Your task to perform on an android device: Play the new Drake video on YouTube Image 0: 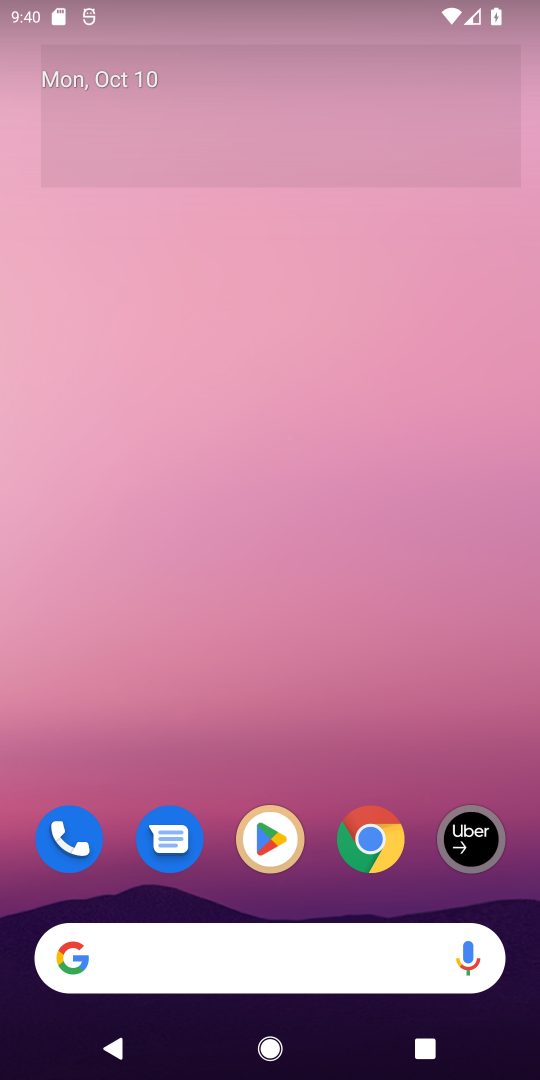
Step 0: drag from (342, 903) to (359, 87)
Your task to perform on an android device: Play the new Drake video on YouTube Image 1: 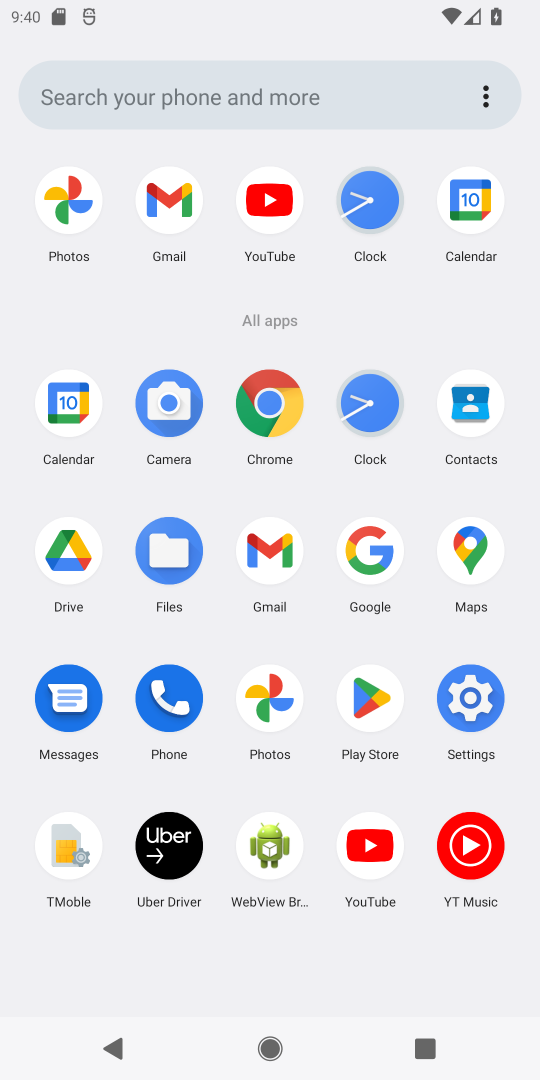
Step 1: click (382, 832)
Your task to perform on an android device: Play the new Drake video on YouTube Image 2: 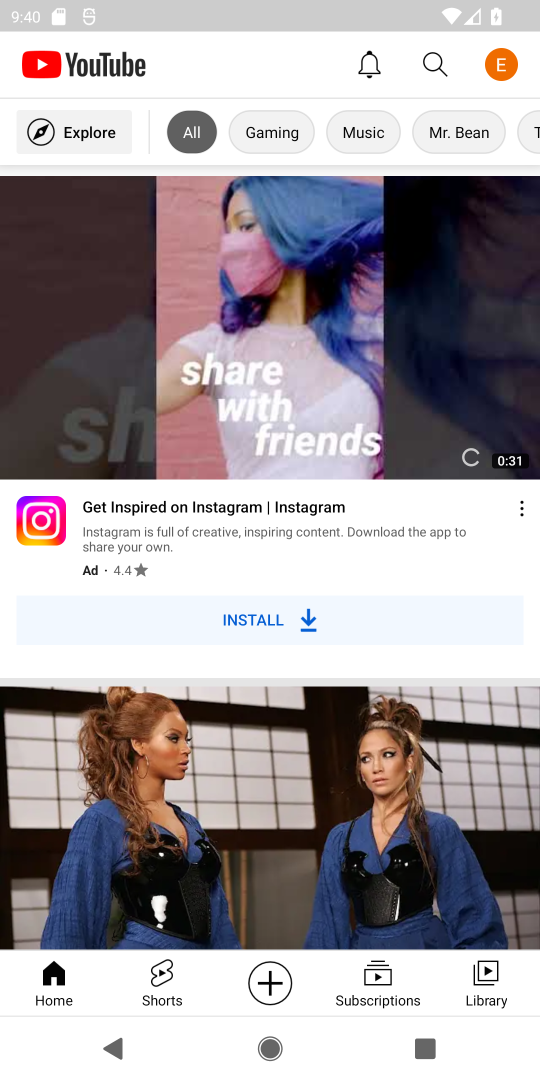
Step 2: click (432, 61)
Your task to perform on an android device: Play the new Drake video on YouTube Image 3: 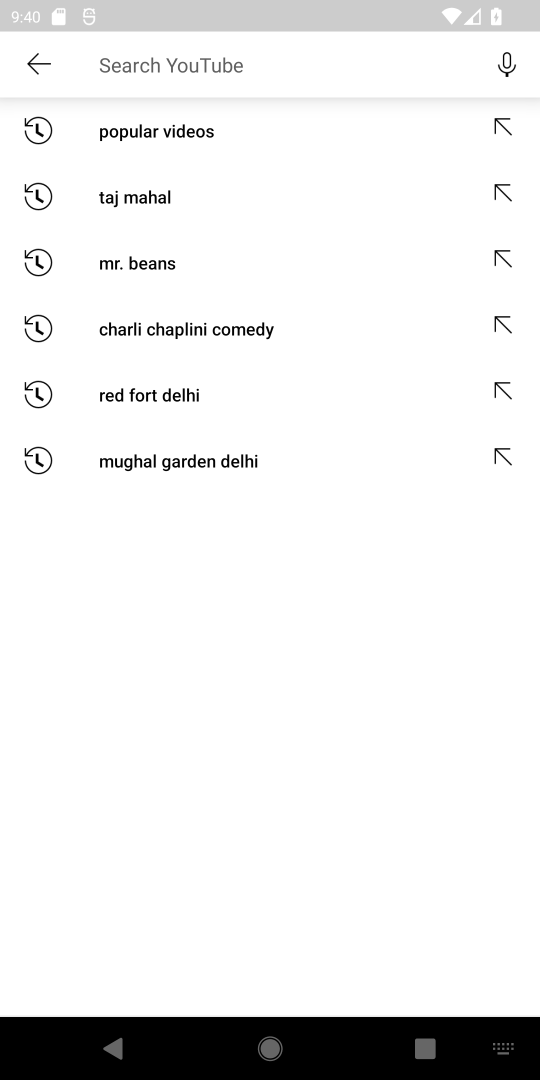
Step 3: type "drake video"
Your task to perform on an android device: Play the new Drake video on YouTube Image 4: 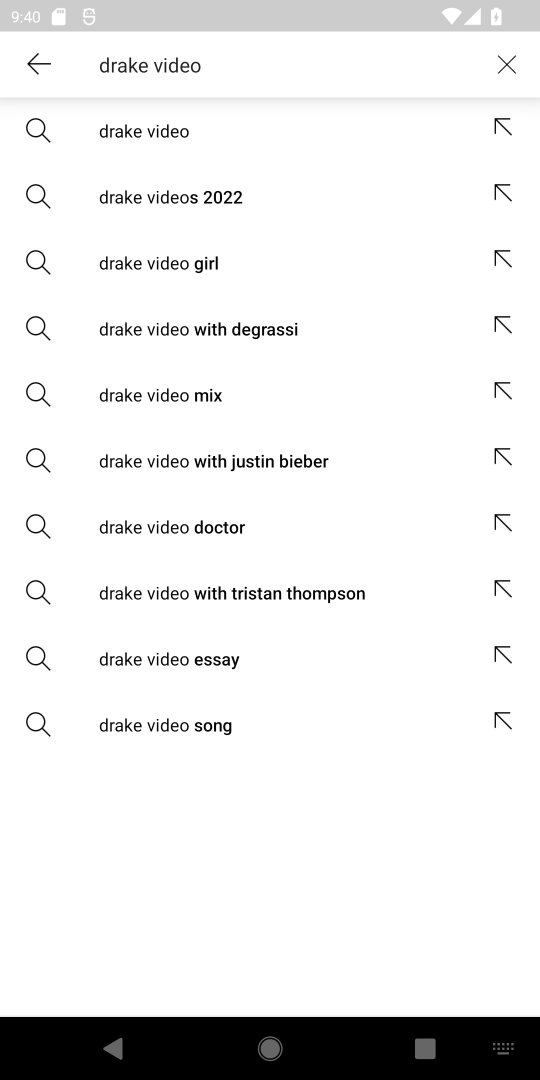
Step 4: press enter
Your task to perform on an android device: Play the new Drake video on YouTube Image 5: 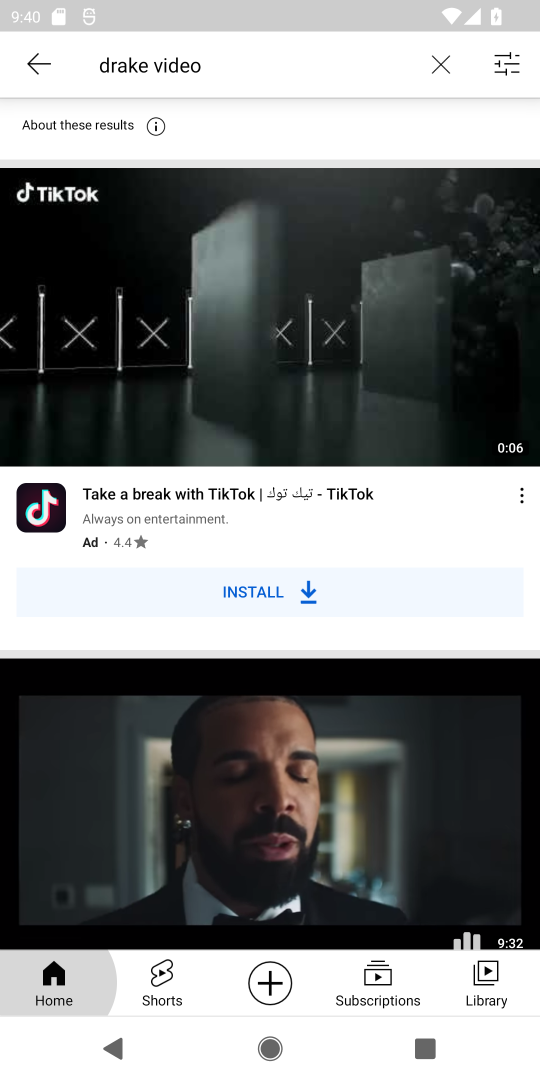
Step 5: drag from (385, 730) to (398, 435)
Your task to perform on an android device: Play the new Drake video on YouTube Image 6: 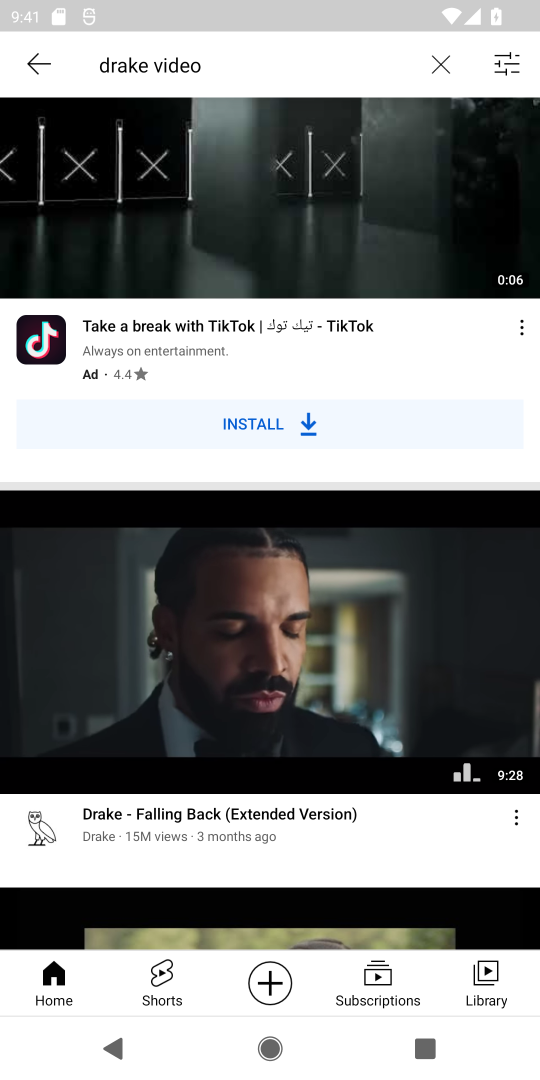
Step 6: click (108, 813)
Your task to perform on an android device: Play the new Drake video on YouTube Image 7: 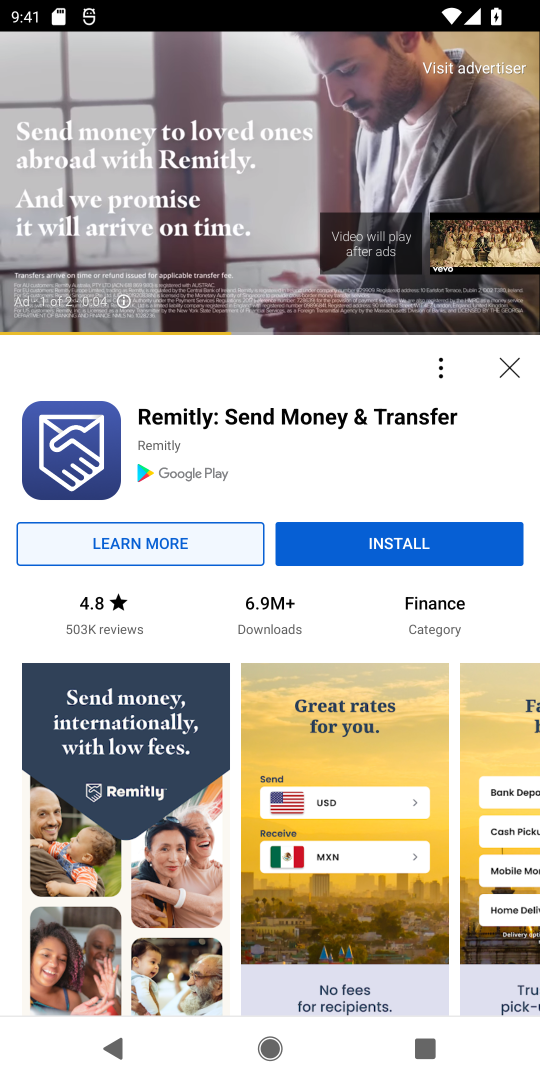
Step 7: click (504, 351)
Your task to perform on an android device: Play the new Drake video on YouTube Image 8: 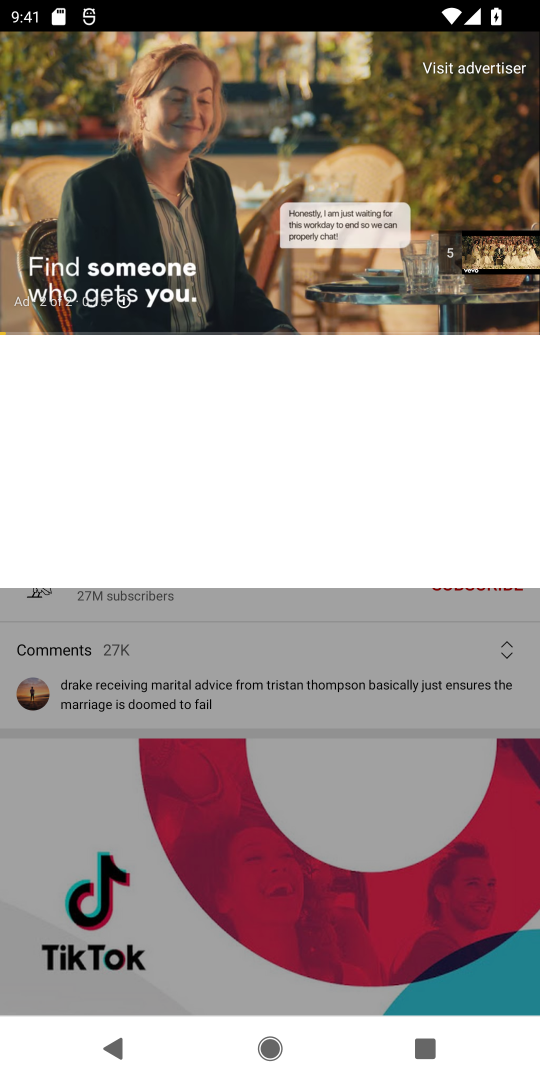
Step 8: drag from (43, 451) to (100, 334)
Your task to perform on an android device: Play the new Drake video on YouTube Image 9: 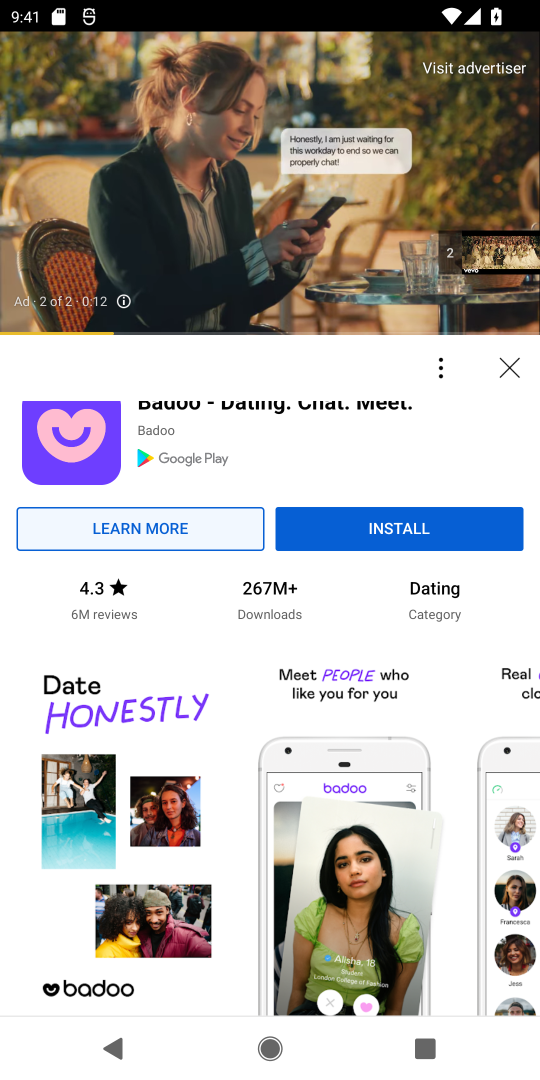
Step 9: click (514, 374)
Your task to perform on an android device: Play the new Drake video on YouTube Image 10: 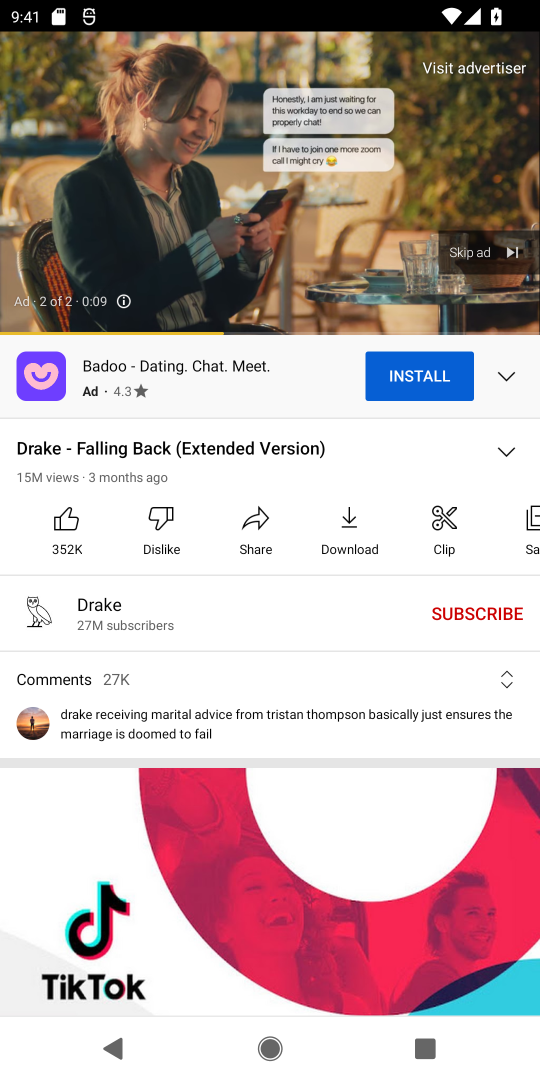
Step 10: click (108, 607)
Your task to perform on an android device: Play the new Drake video on YouTube Image 11: 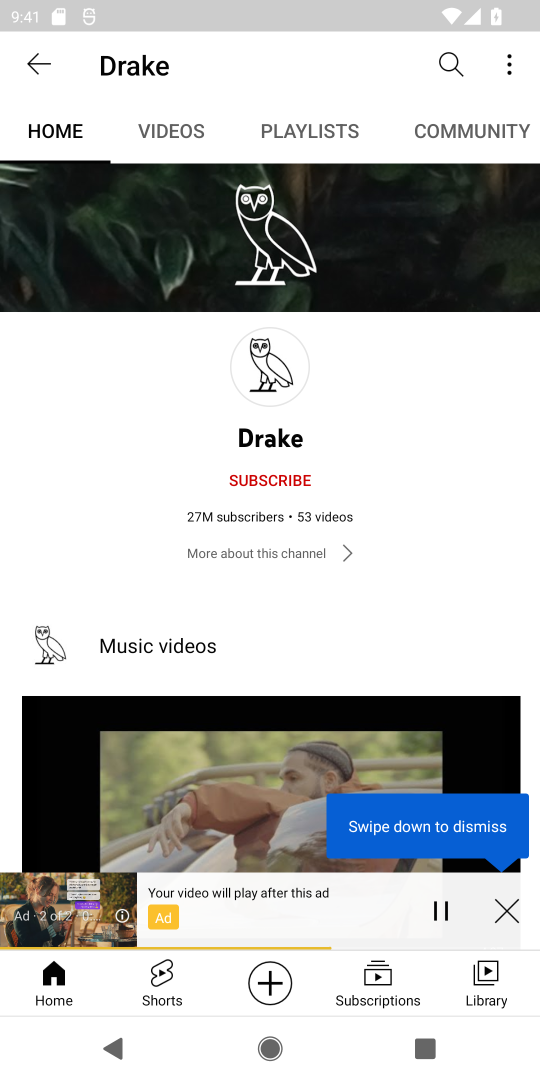
Step 11: click (185, 133)
Your task to perform on an android device: Play the new Drake video on YouTube Image 12: 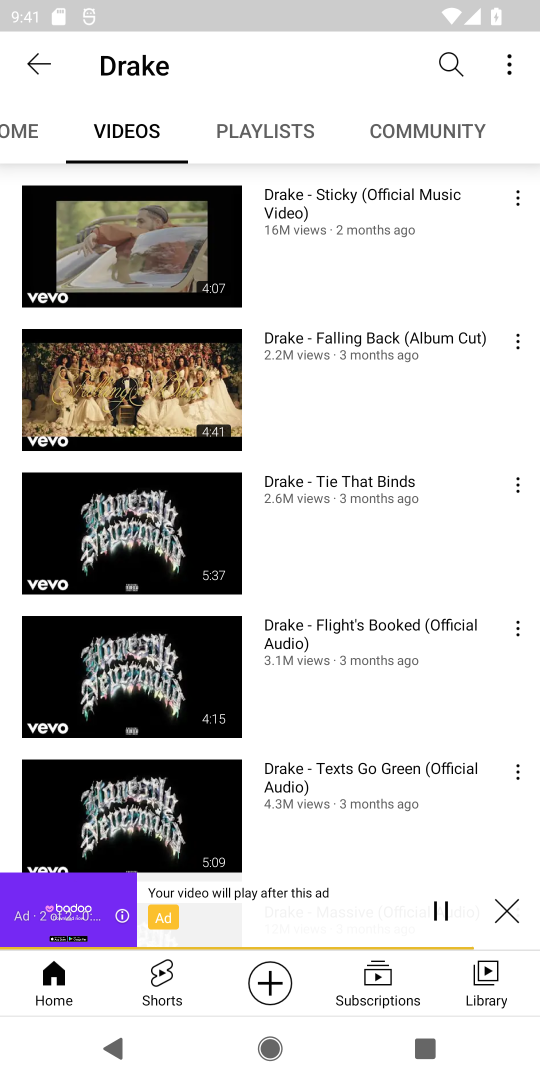
Step 12: click (127, 233)
Your task to perform on an android device: Play the new Drake video on YouTube Image 13: 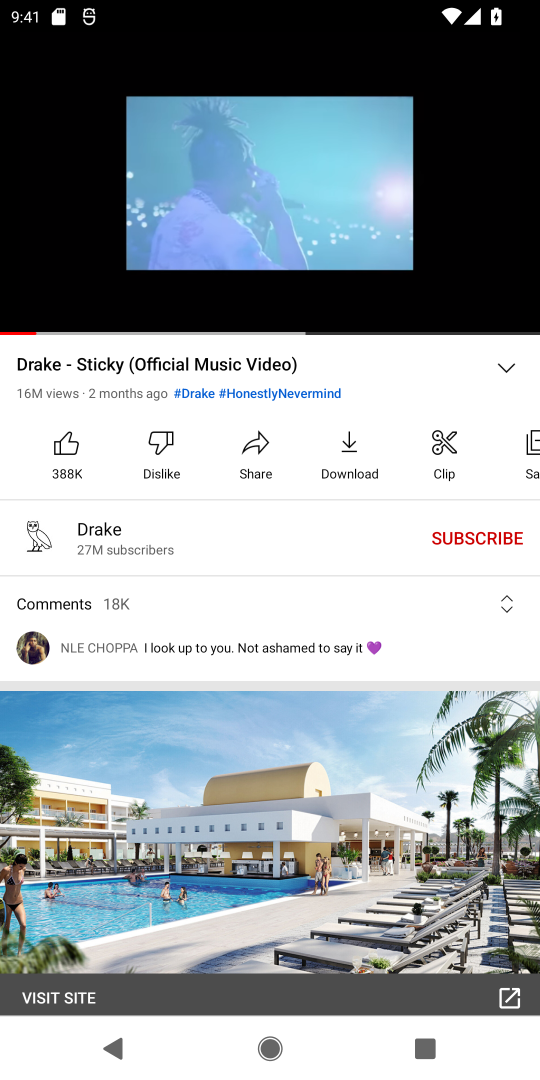
Step 13: task complete